Your task to perform on an android device: open the mobile data screen to see how much data has been used Image 0: 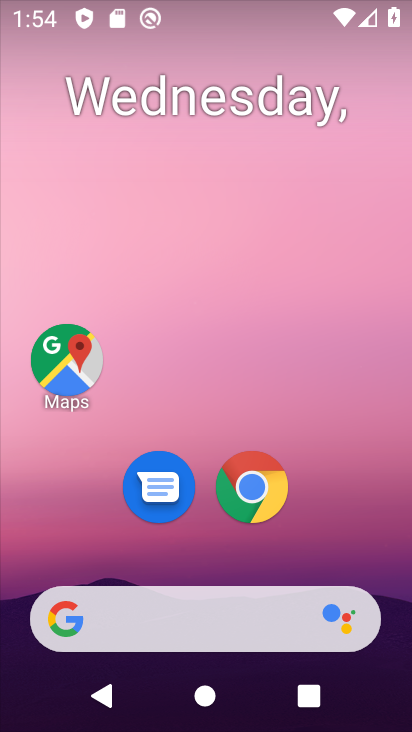
Step 0: drag from (216, 471) to (283, 57)
Your task to perform on an android device: open the mobile data screen to see how much data has been used Image 1: 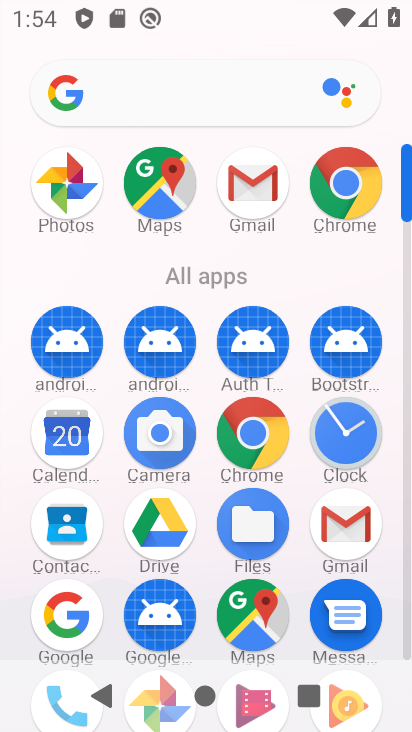
Step 1: drag from (204, 577) to (261, 205)
Your task to perform on an android device: open the mobile data screen to see how much data has been used Image 2: 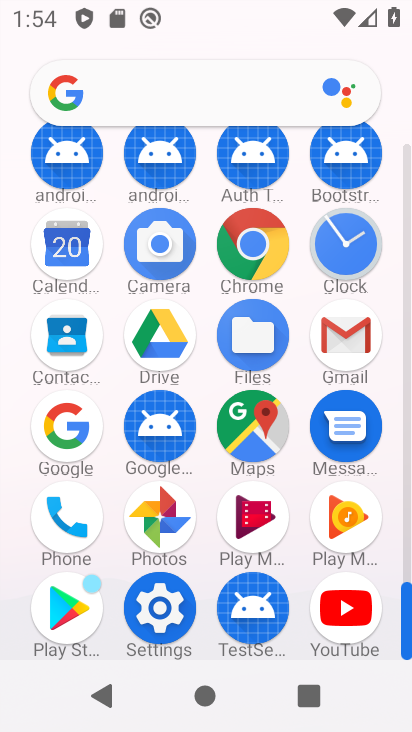
Step 2: click (164, 617)
Your task to perform on an android device: open the mobile data screen to see how much data has been used Image 3: 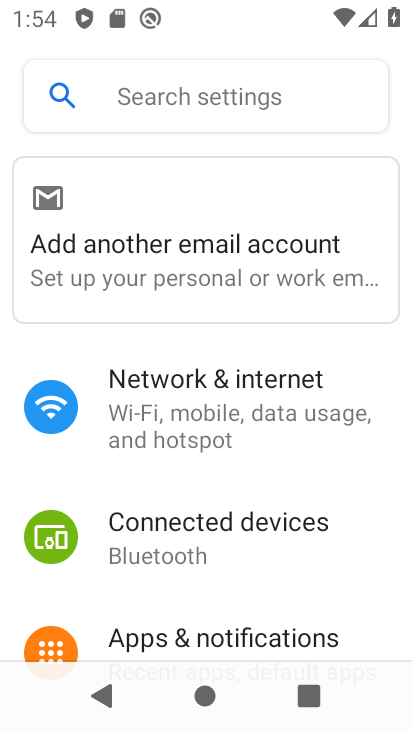
Step 3: click (202, 412)
Your task to perform on an android device: open the mobile data screen to see how much data has been used Image 4: 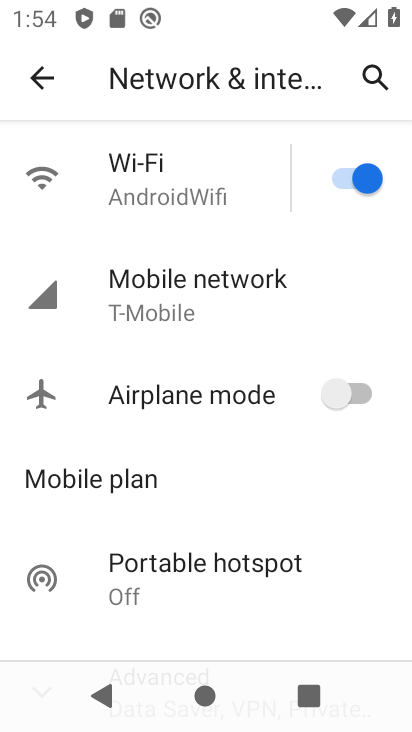
Step 4: click (194, 307)
Your task to perform on an android device: open the mobile data screen to see how much data has been used Image 5: 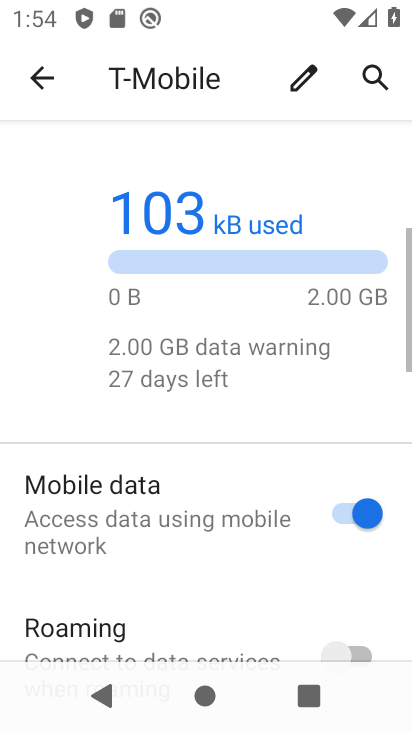
Step 5: drag from (175, 510) to (248, 72)
Your task to perform on an android device: open the mobile data screen to see how much data has been used Image 6: 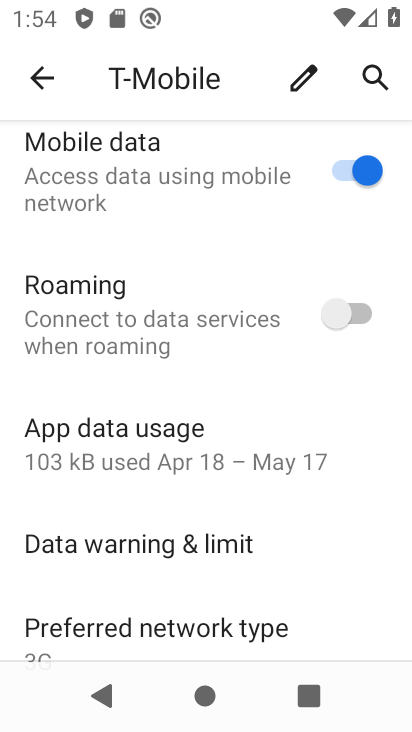
Step 6: click (161, 456)
Your task to perform on an android device: open the mobile data screen to see how much data has been used Image 7: 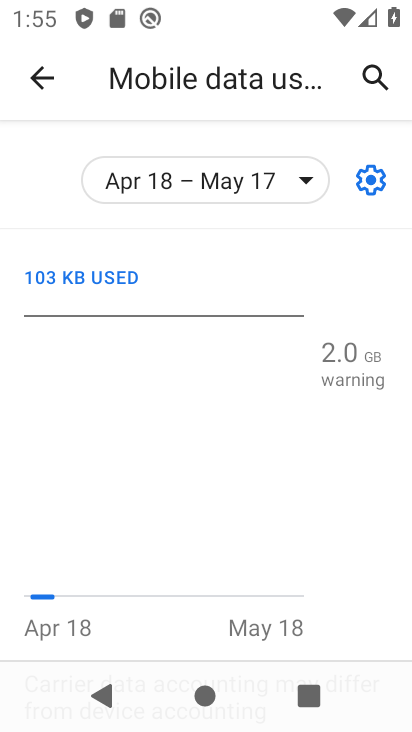
Step 7: task complete